Your task to perform on an android device: change notification settings in the gmail app Image 0: 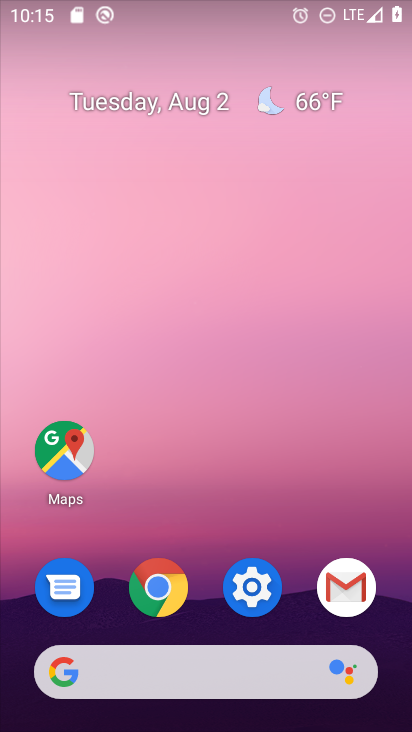
Step 0: press home button
Your task to perform on an android device: change notification settings in the gmail app Image 1: 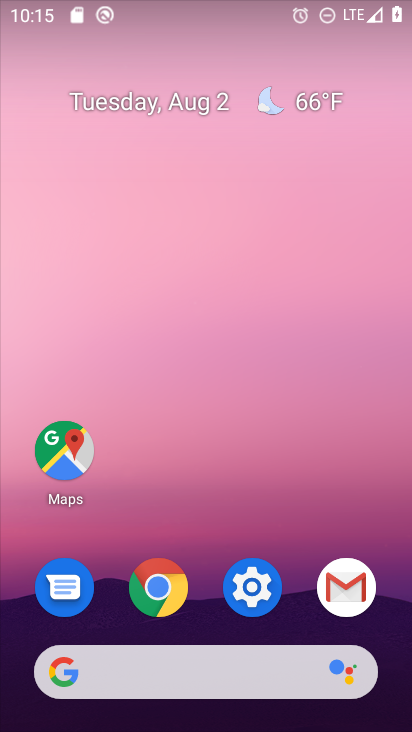
Step 1: click (357, 589)
Your task to perform on an android device: change notification settings in the gmail app Image 2: 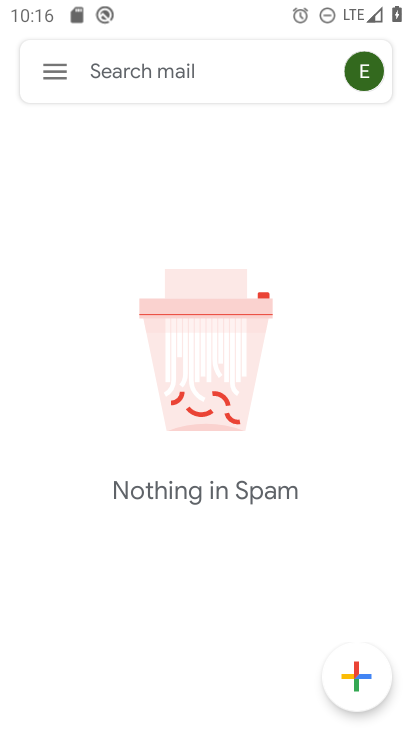
Step 2: click (62, 82)
Your task to perform on an android device: change notification settings in the gmail app Image 3: 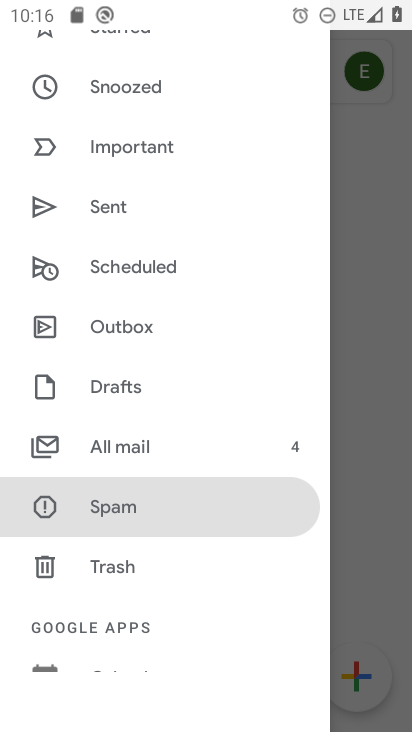
Step 3: drag from (138, 563) to (171, 320)
Your task to perform on an android device: change notification settings in the gmail app Image 4: 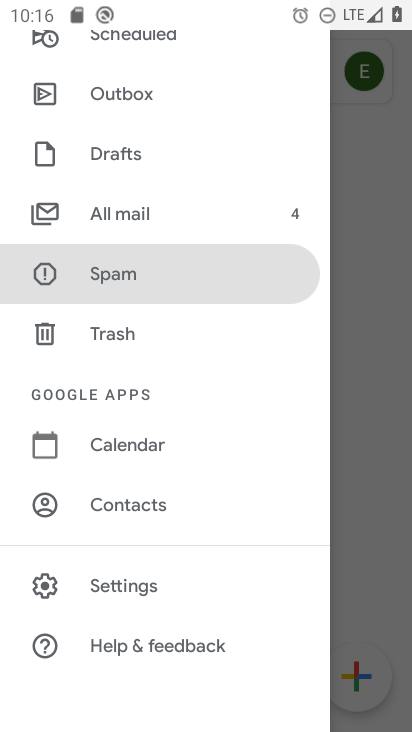
Step 4: click (148, 583)
Your task to perform on an android device: change notification settings in the gmail app Image 5: 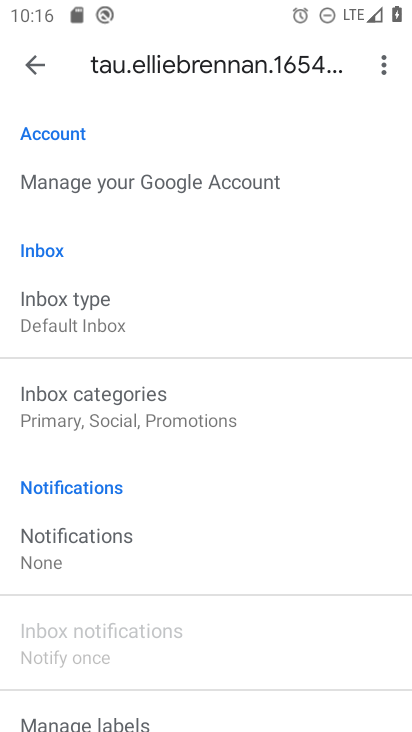
Step 5: click (102, 540)
Your task to perform on an android device: change notification settings in the gmail app Image 6: 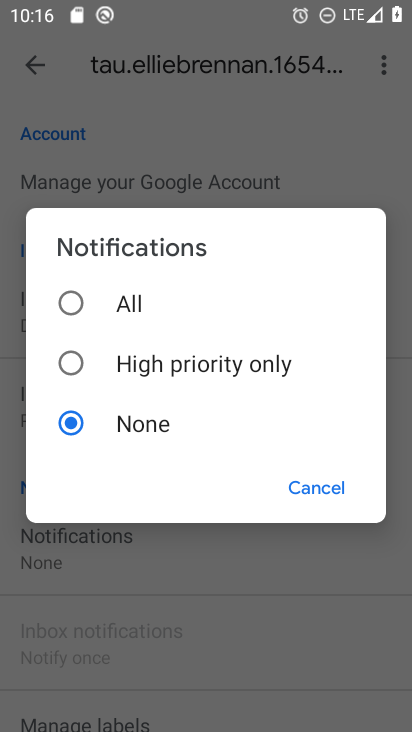
Step 6: click (125, 315)
Your task to perform on an android device: change notification settings in the gmail app Image 7: 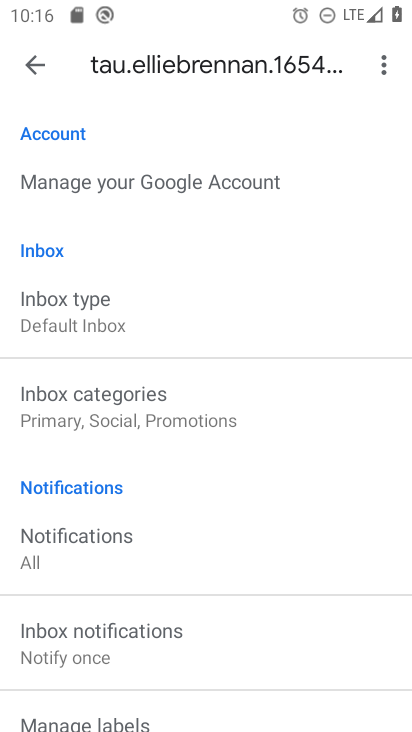
Step 7: task complete